Your task to perform on an android device: Go to Yahoo.com Image 0: 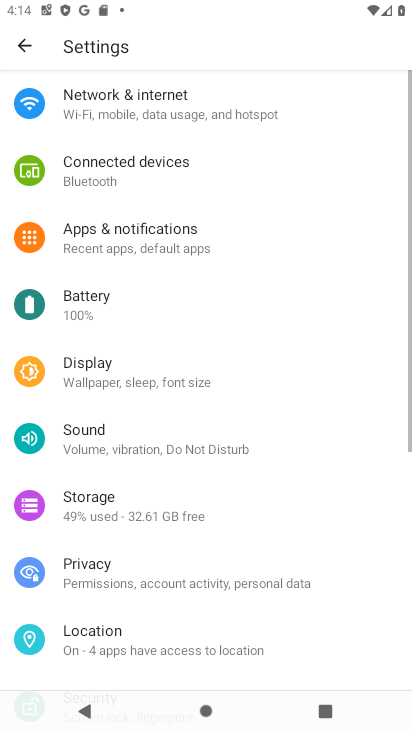
Step 0: press home button
Your task to perform on an android device: Go to Yahoo.com Image 1: 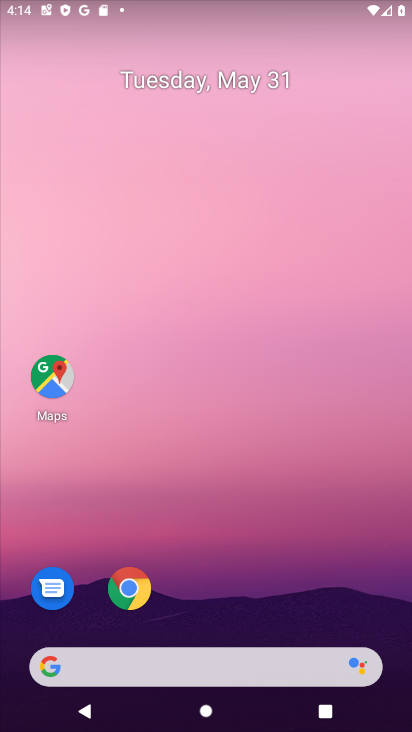
Step 1: click (131, 589)
Your task to perform on an android device: Go to Yahoo.com Image 2: 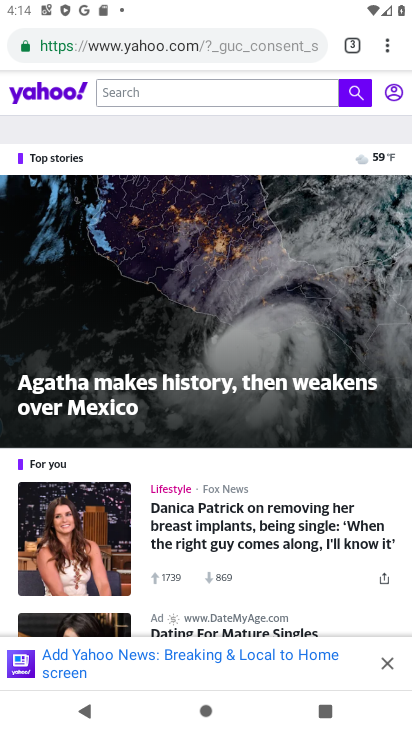
Step 2: task complete